Your task to perform on an android device: Do I have any events this weekend? Image 0: 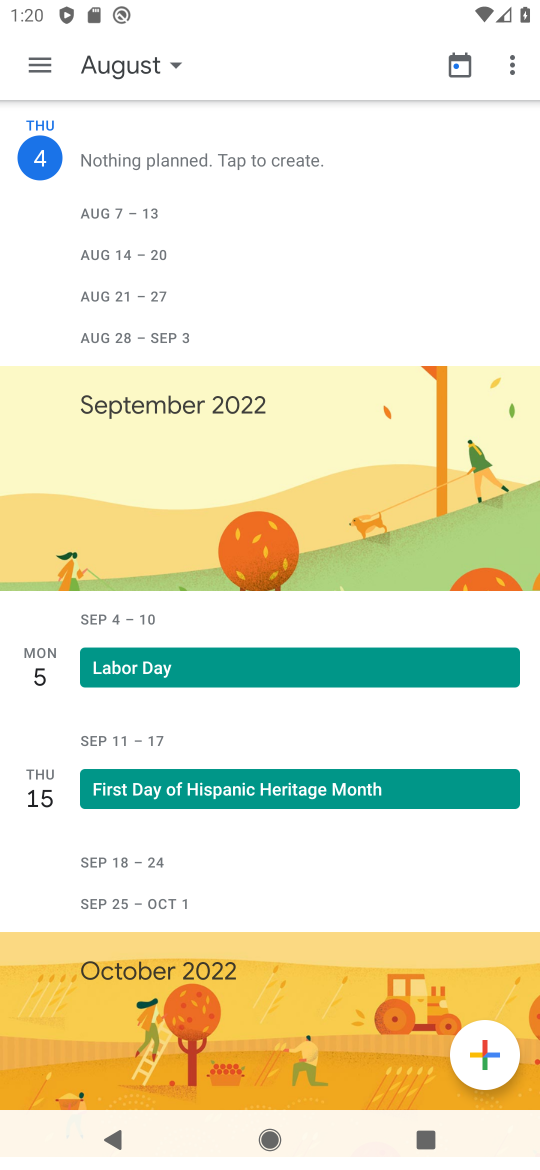
Step 0: click (35, 64)
Your task to perform on an android device: Do I have any events this weekend? Image 1: 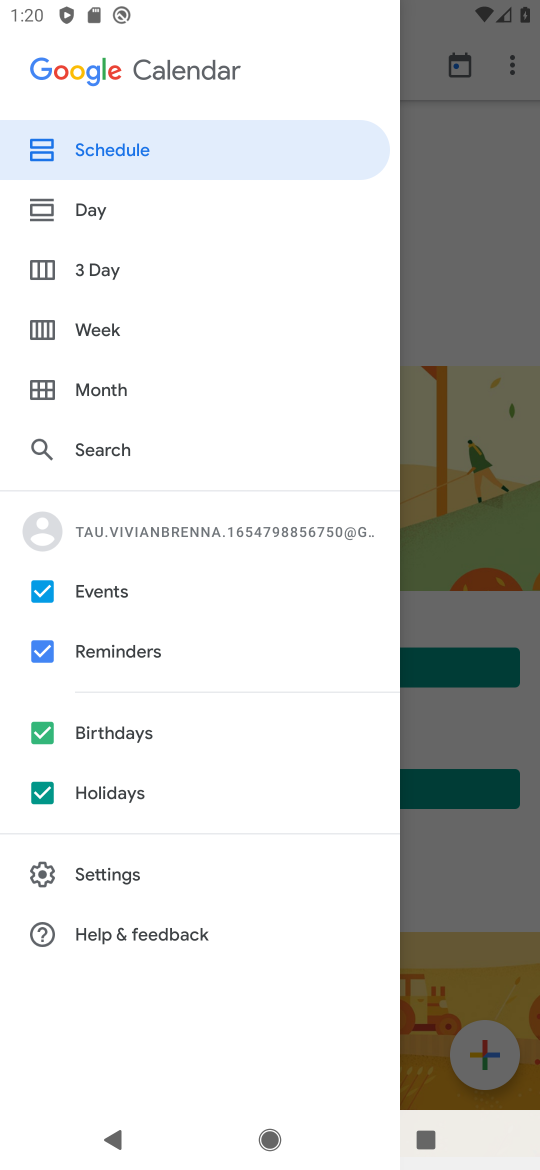
Step 1: click (83, 324)
Your task to perform on an android device: Do I have any events this weekend? Image 2: 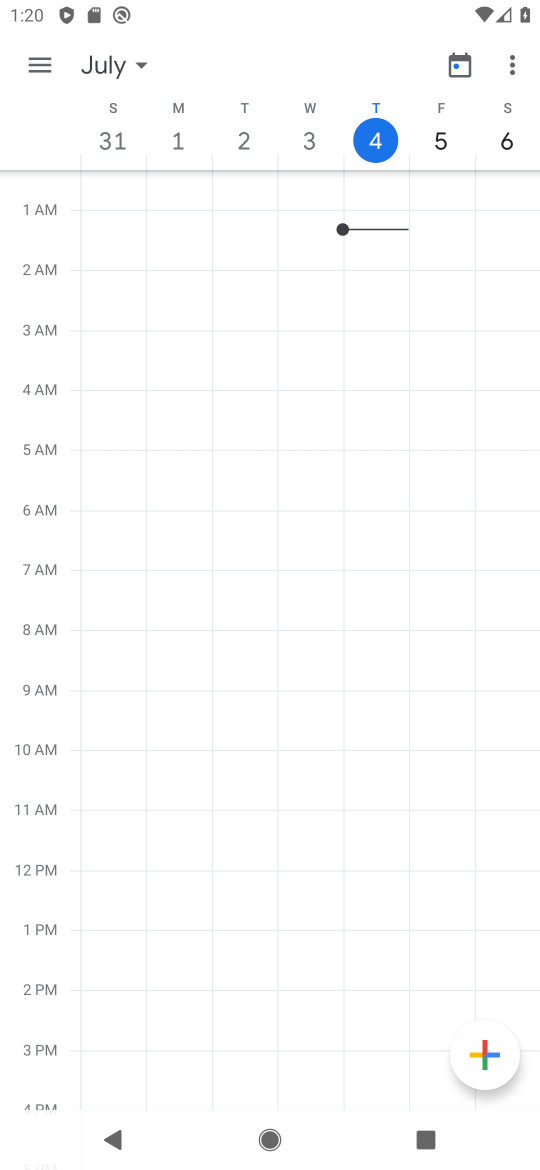
Step 2: task complete